Your task to perform on an android device: How do I get to the nearest Sprint Store? Image 0: 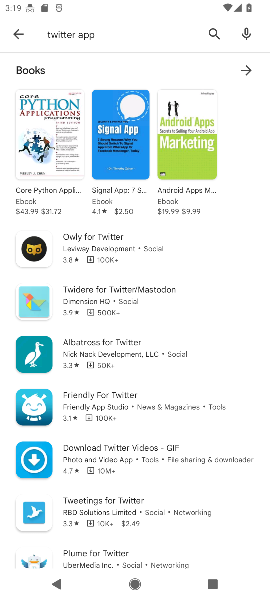
Step 0: press home button
Your task to perform on an android device: How do I get to the nearest Sprint Store? Image 1: 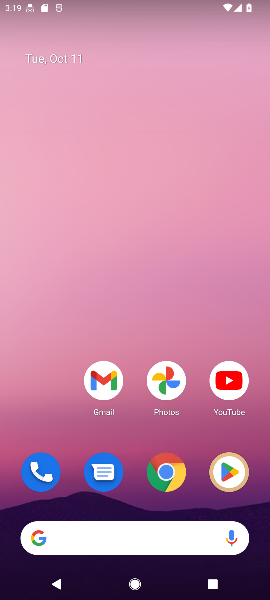
Step 1: click (163, 471)
Your task to perform on an android device: How do I get to the nearest Sprint Store? Image 2: 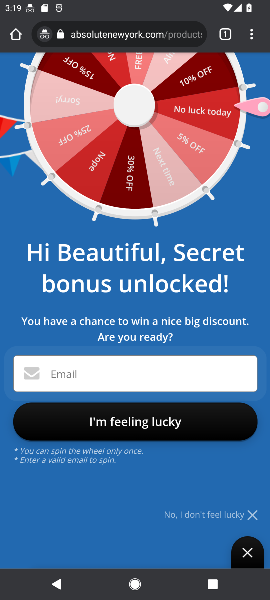
Step 2: click (130, 32)
Your task to perform on an android device: How do I get to the nearest Sprint Store? Image 3: 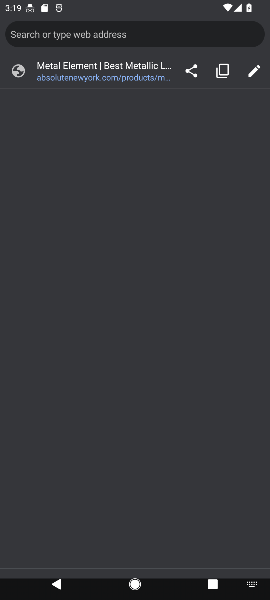
Step 3: click (130, 32)
Your task to perform on an android device: How do I get to the nearest Sprint Store? Image 4: 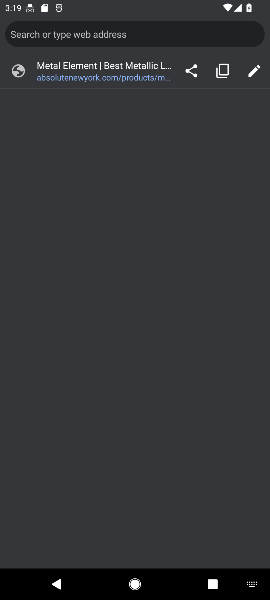
Step 4: click (130, 32)
Your task to perform on an android device: How do I get to the nearest Sprint Store? Image 5: 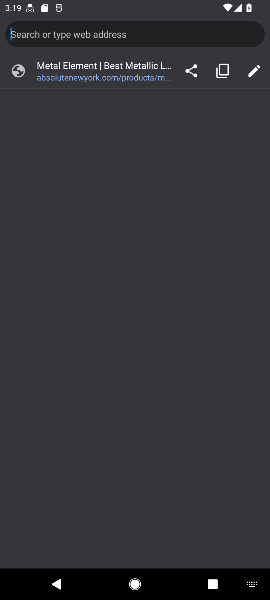
Step 5: type "How do I get to the nearest Sprint Store?"
Your task to perform on an android device: How do I get to the nearest Sprint Store? Image 6: 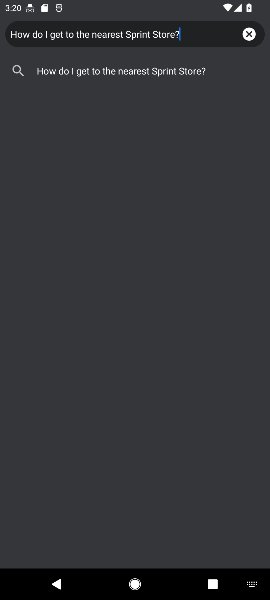
Step 6: type ""
Your task to perform on an android device: How do I get to the nearest Sprint Store? Image 7: 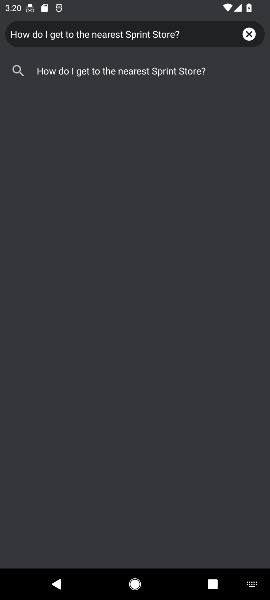
Step 7: click (123, 69)
Your task to perform on an android device: How do I get to the nearest Sprint Store? Image 8: 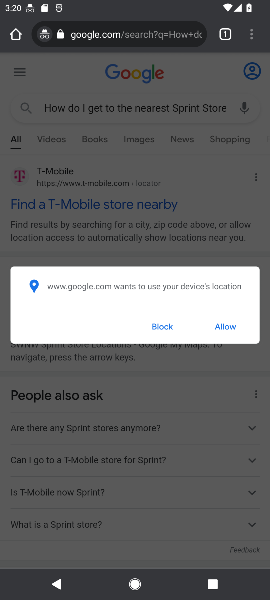
Step 8: click (211, 334)
Your task to perform on an android device: How do I get to the nearest Sprint Store? Image 9: 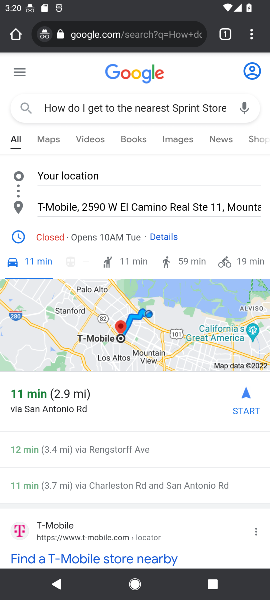
Step 9: task complete